Your task to perform on an android device: Search for the best gaming mouses on Amazon. Image 0: 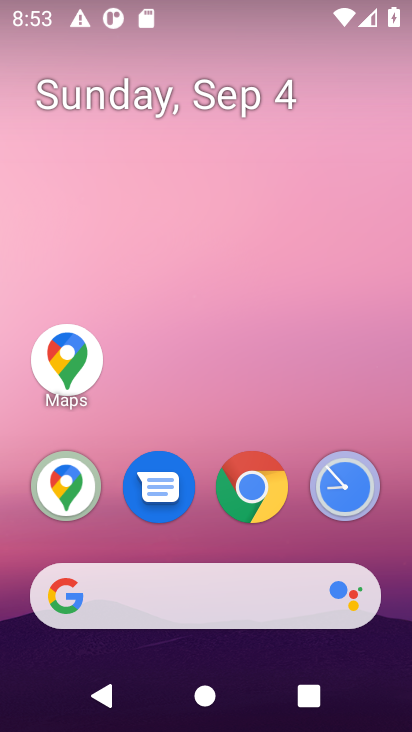
Step 0: click (146, 495)
Your task to perform on an android device: Search for the best gaming mouses on Amazon. Image 1: 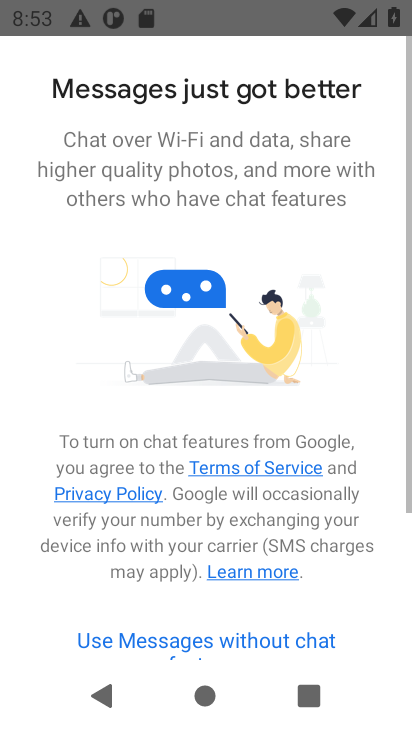
Step 1: task complete